Your task to perform on an android device: delete the emails in spam in the gmail app Image 0: 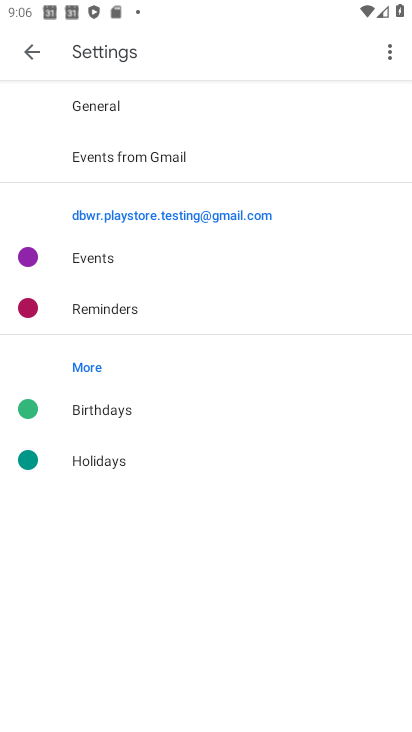
Step 0: press back button
Your task to perform on an android device: delete the emails in spam in the gmail app Image 1: 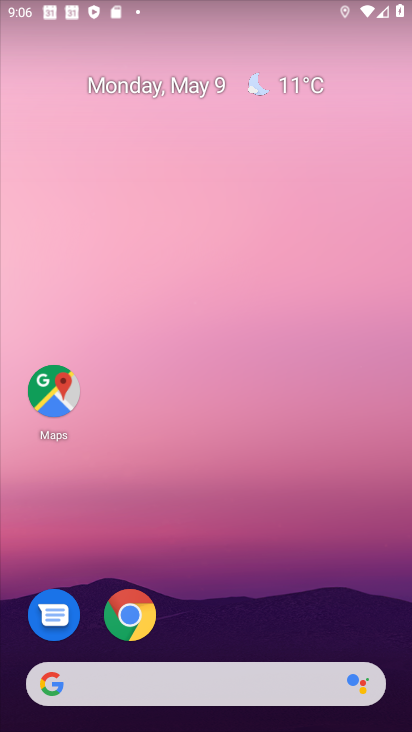
Step 1: drag from (215, 615) to (170, 10)
Your task to perform on an android device: delete the emails in spam in the gmail app Image 2: 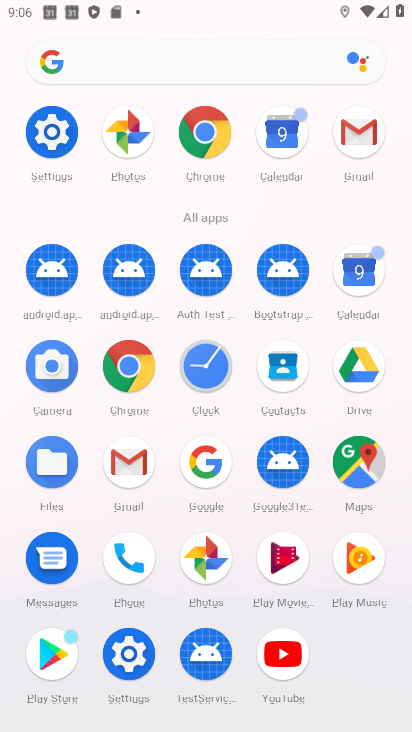
Step 2: click (131, 458)
Your task to perform on an android device: delete the emails in spam in the gmail app Image 3: 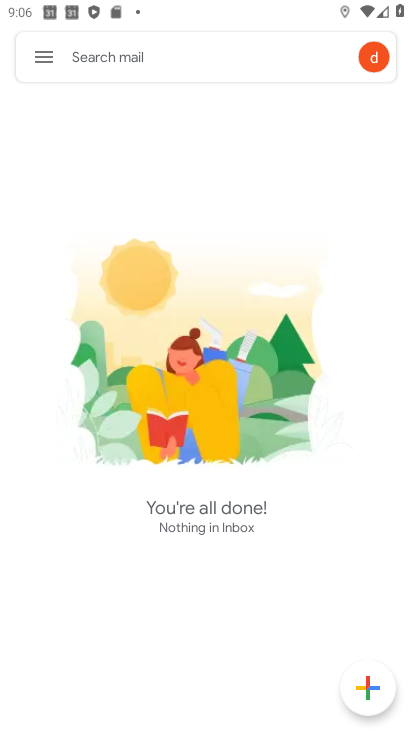
Step 3: click (38, 60)
Your task to perform on an android device: delete the emails in spam in the gmail app Image 4: 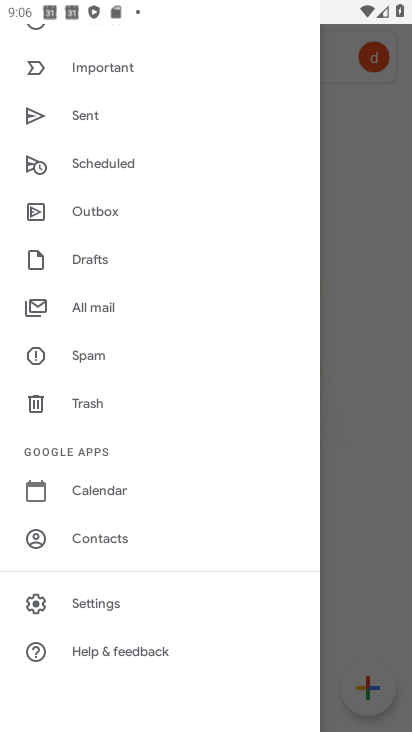
Step 4: click (99, 347)
Your task to perform on an android device: delete the emails in spam in the gmail app Image 5: 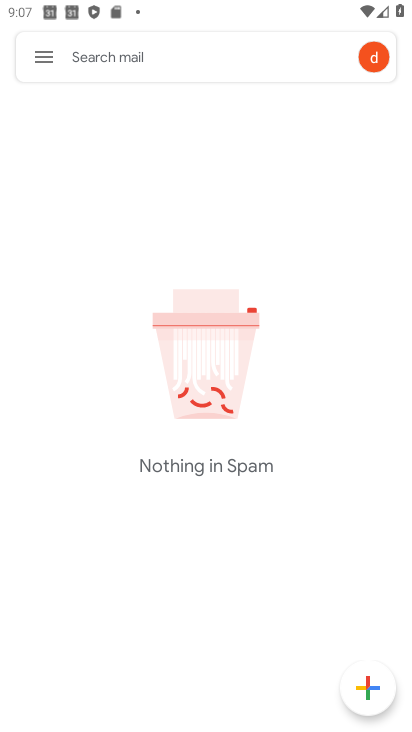
Step 5: task complete